Your task to perform on an android device: make emails show in primary in the gmail app Image 0: 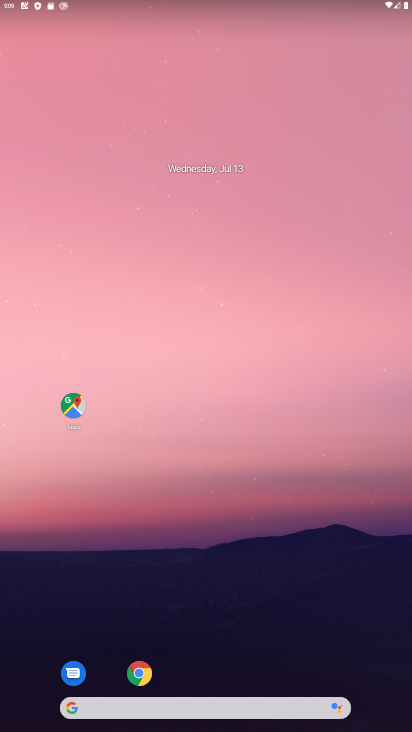
Step 0: drag from (195, 665) to (158, 140)
Your task to perform on an android device: make emails show in primary in the gmail app Image 1: 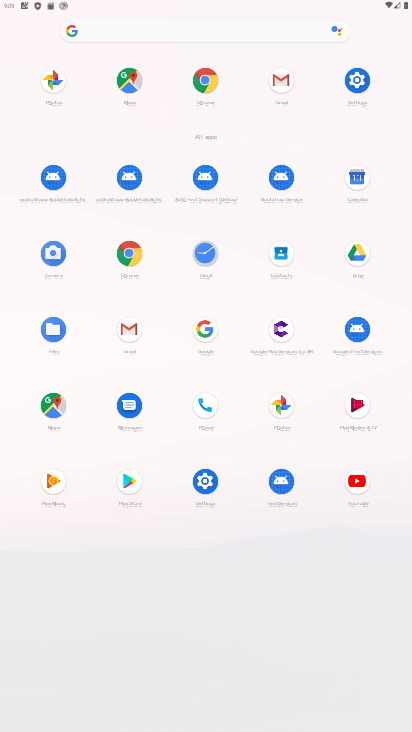
Step 1: click (285, 81)
Your task to perform on an android device: make emails show in primary in the gmail app Image 2: 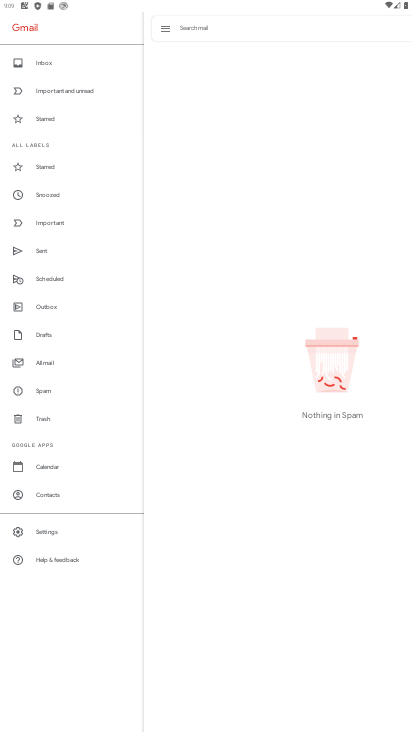
Step 2: task complete